Your task to perform on an android device: install app "Duolingo: language lessons" Image 0: 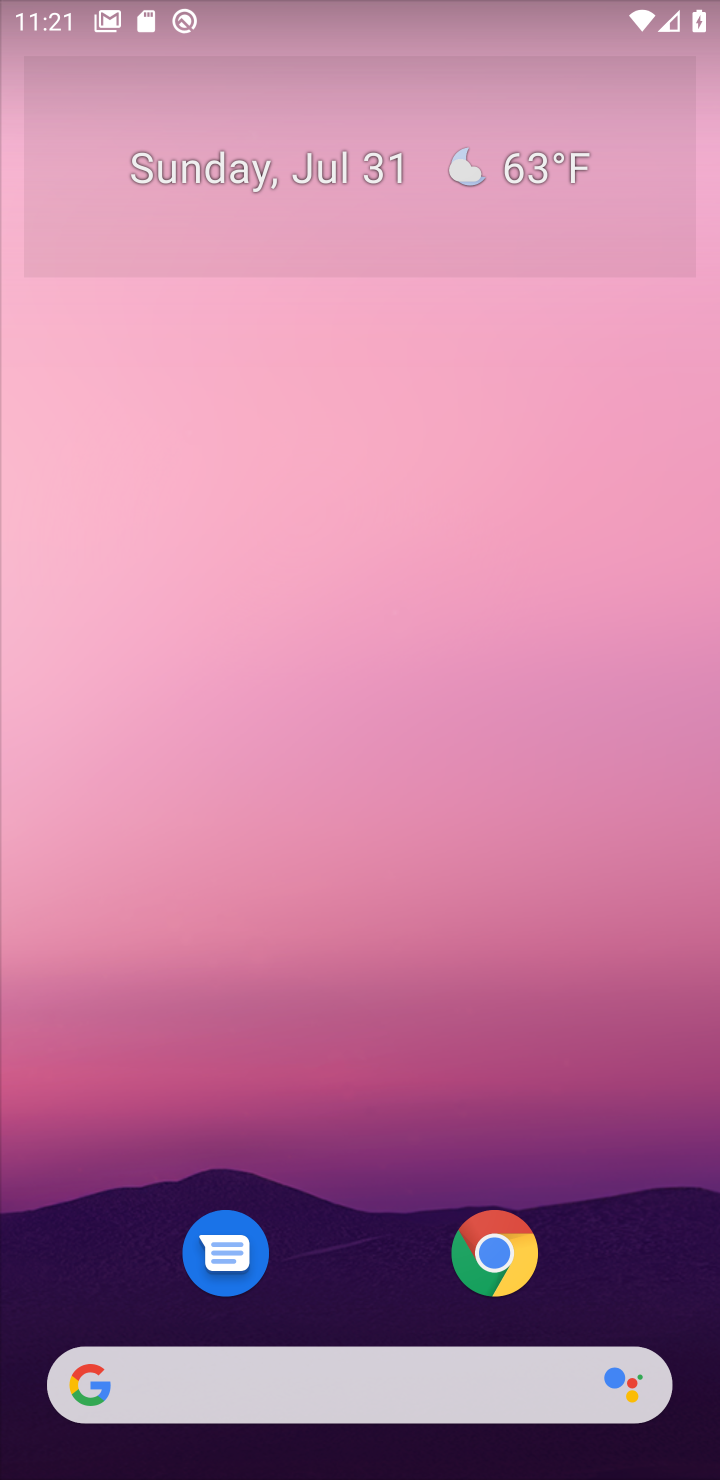
Step 0: drag from (410, 1017) to (412, 111)
Your task to perform on an android device: install app "Duolingo: language lessons" Image 1: 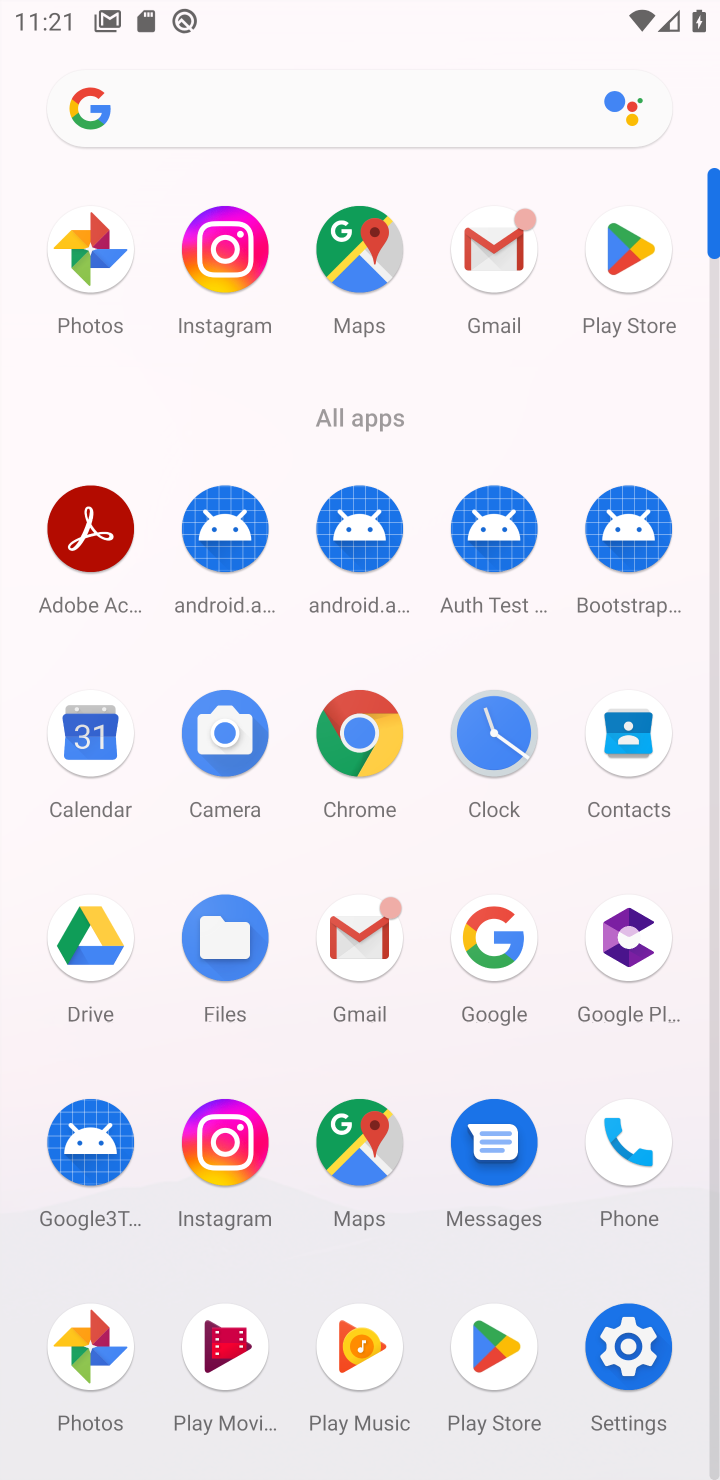
Step 1: click (639, 232)
Your task to perform on an android device: install app "Duolingo: language lessons" Image 2: 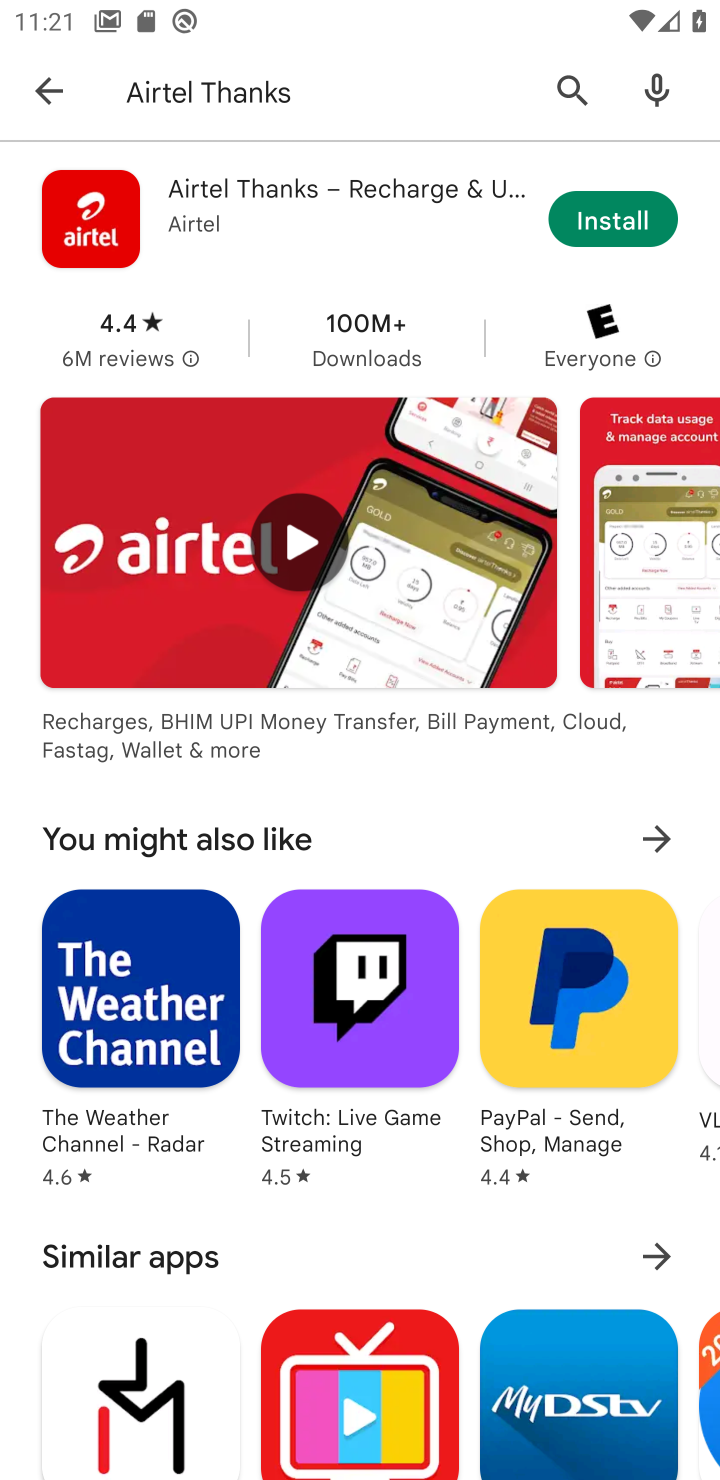
Step 2: click (424, 112)
Your task to perform on an android device: install app "Duolingo: language lessons" Image 3: 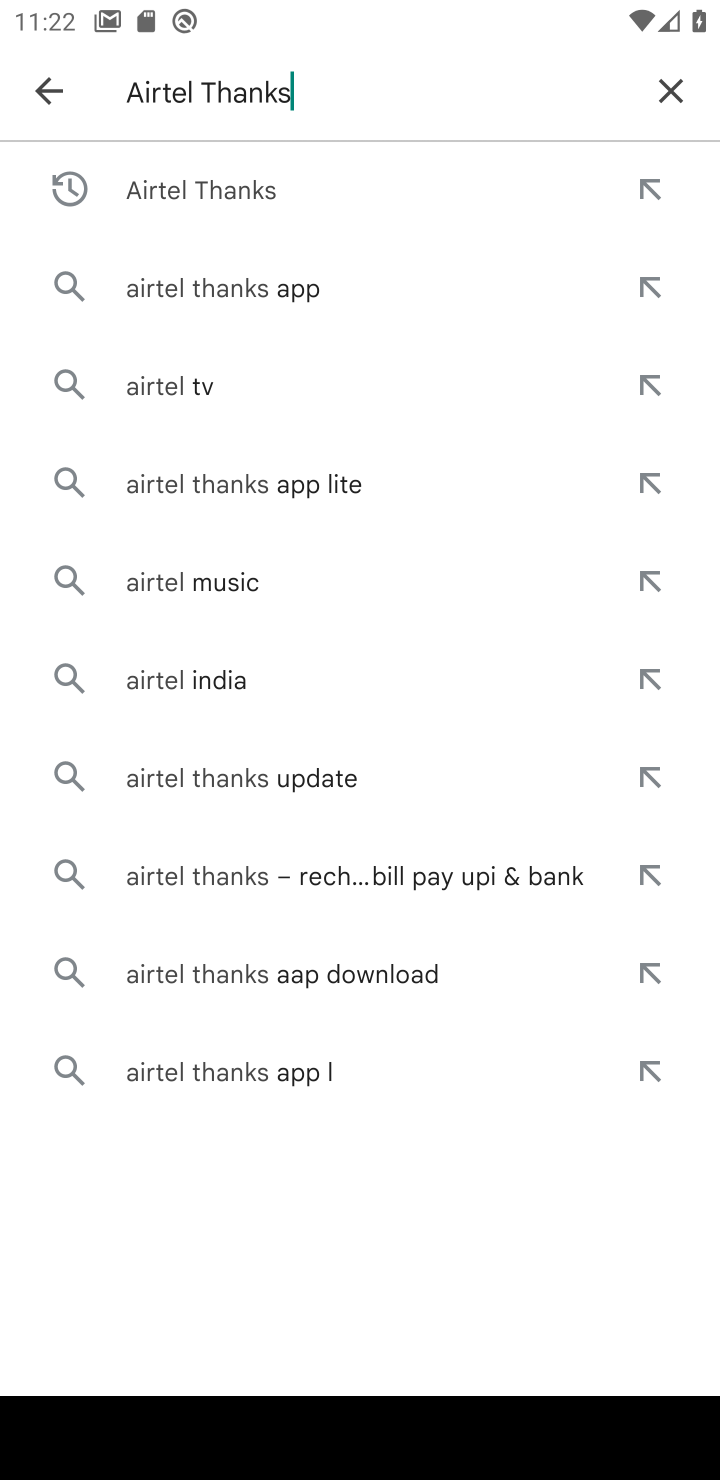
Step 3: click (658, 86)
Your task to perform on an android device: install app "Duolingo: language lessons" Image 4: 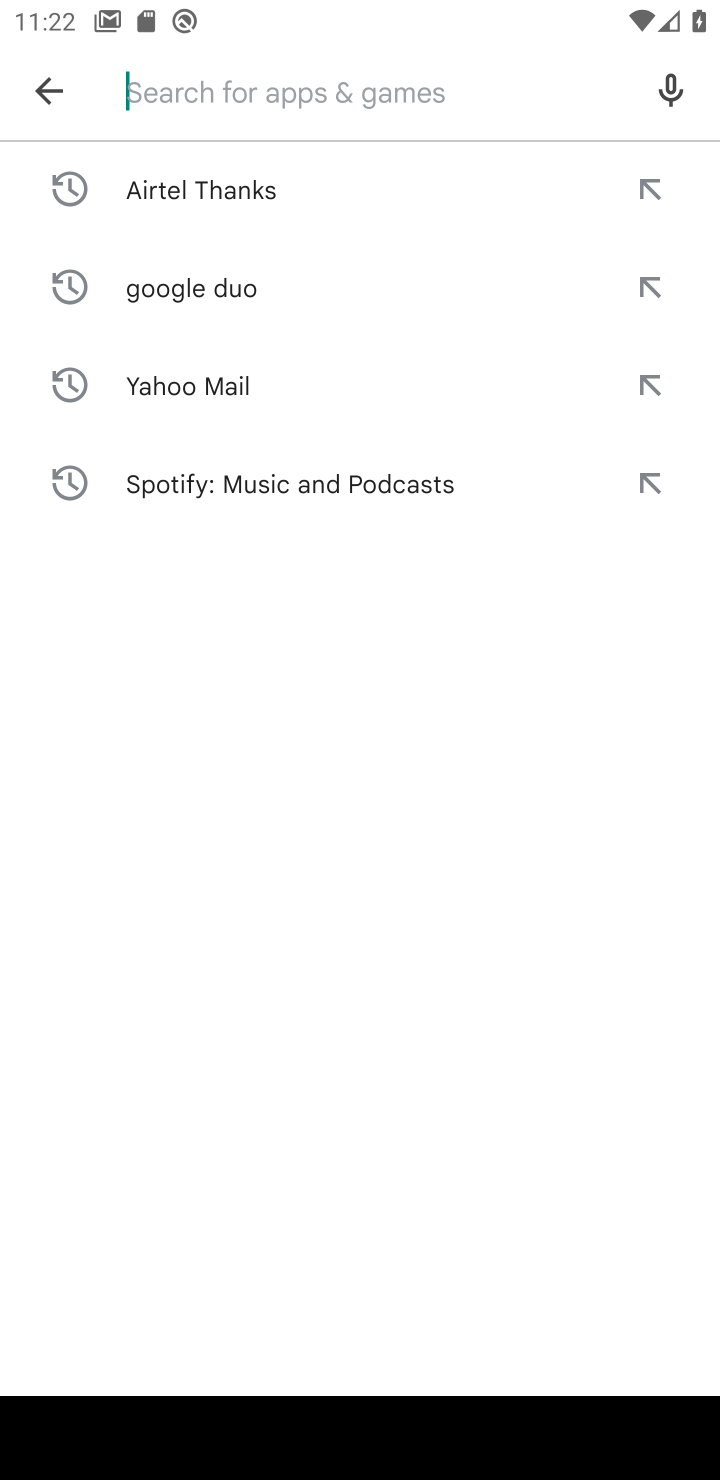
Step 4: type "Duolingo: language lessons"
Your task to perform on an android device: install app "Duolingo: language lessons" Image 5: 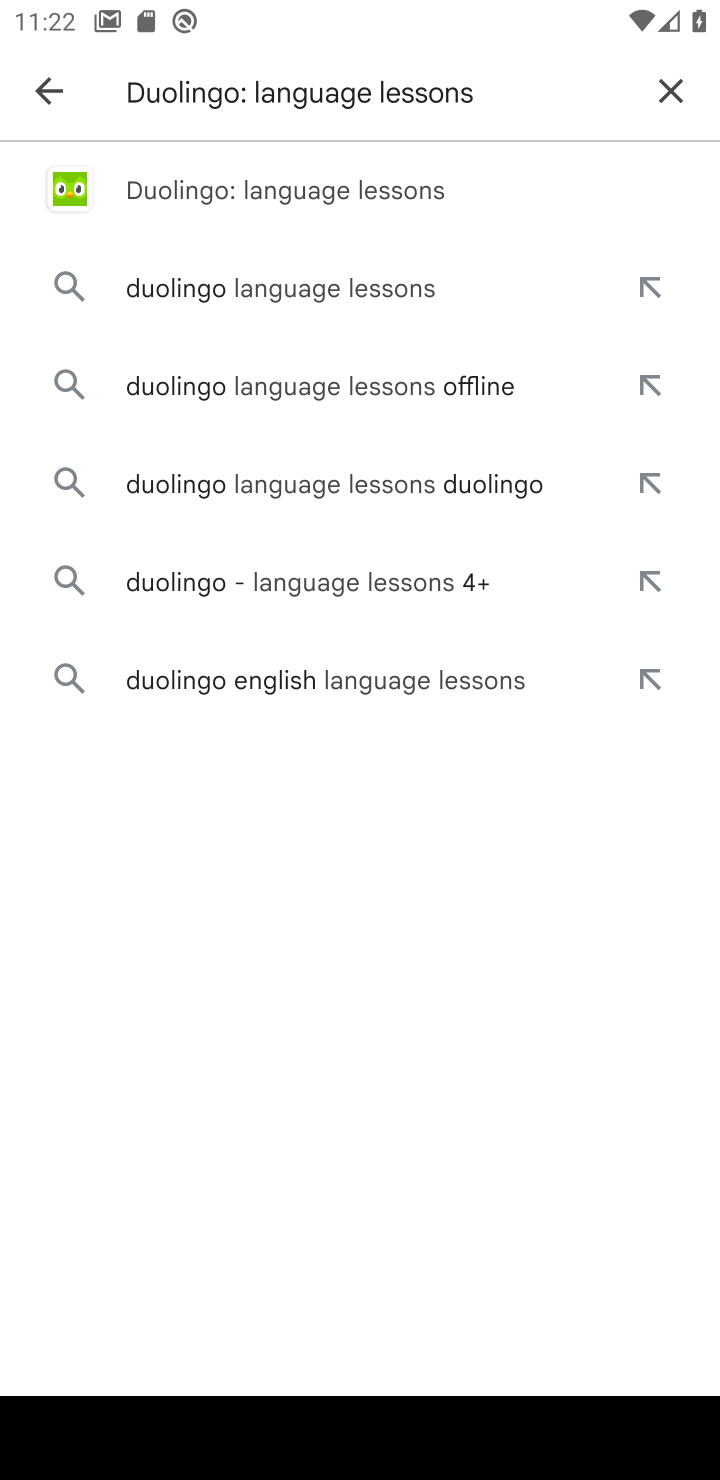
Step 5: press enter
Your task to perform on an android device: install app "Duolingo: language lessons" Image 6: 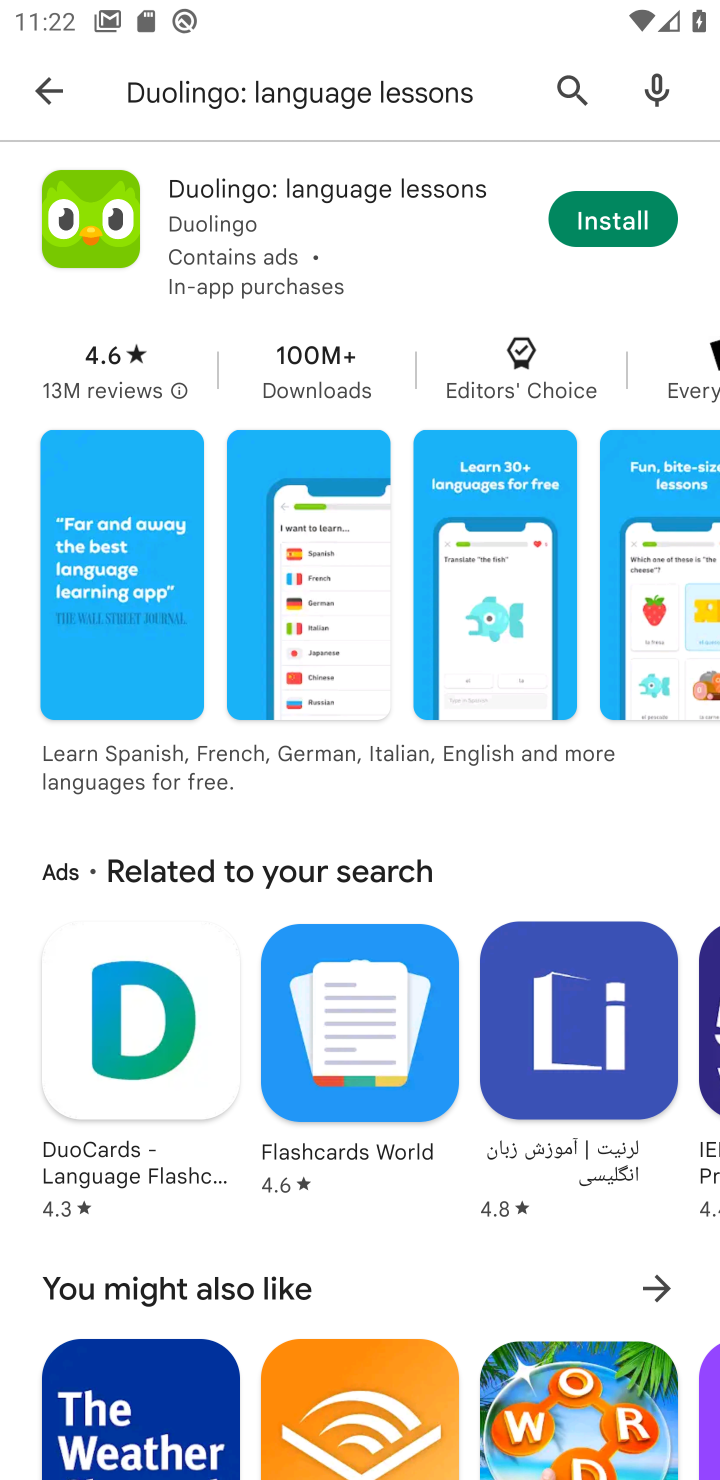
Step 6: click (616, 220)
Your task to perform on an android device: install app "Duolingo: language lessons" Image 7: 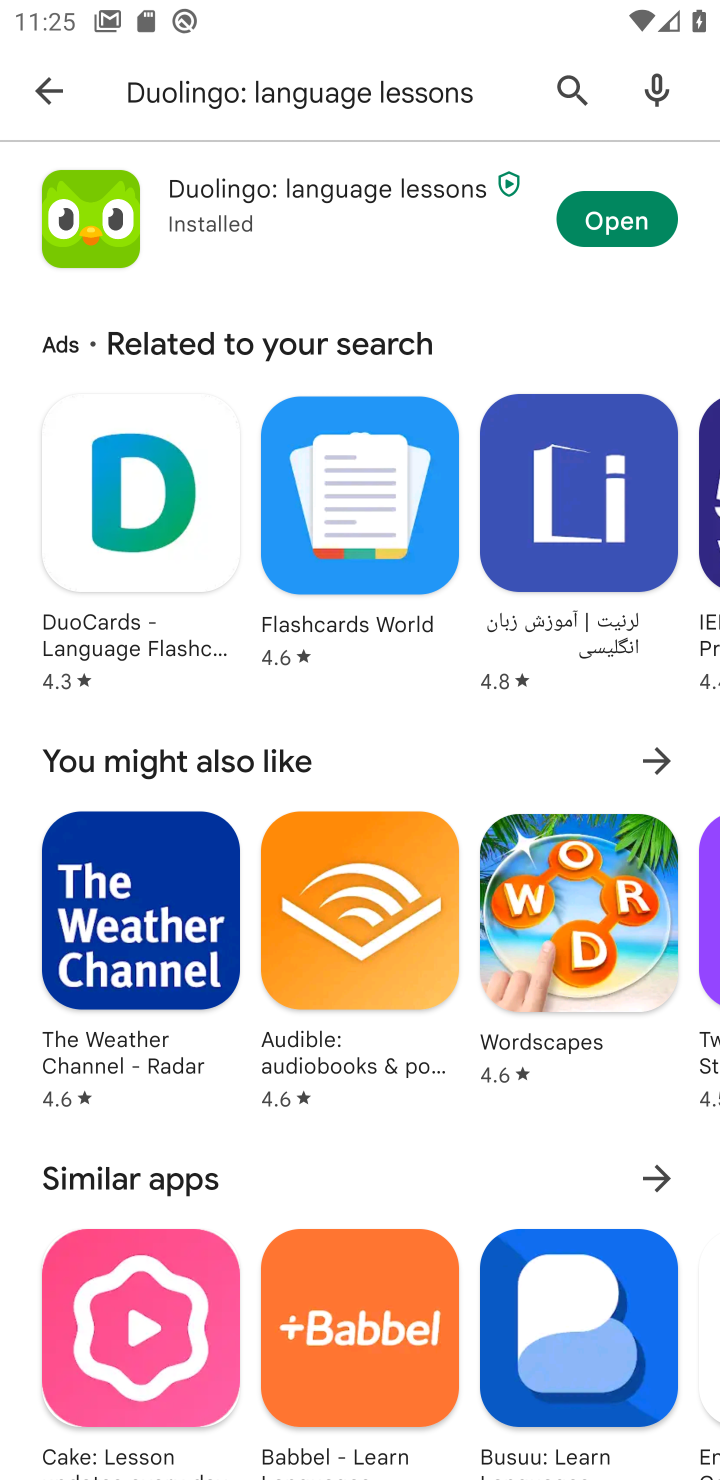
Step 7: task complete